Your task to perform on an android device: turn off picture-in-picture Image 0: 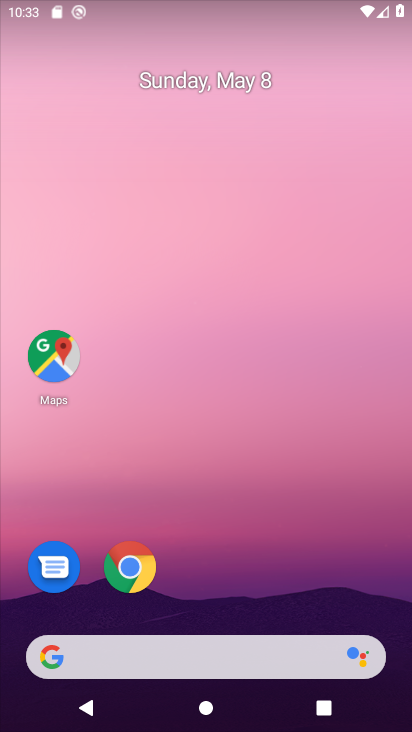
Step 0: drag from (261, 559) to (189, 70)
Your task to perform on an android device: turn off picture-in-picture Image 1: 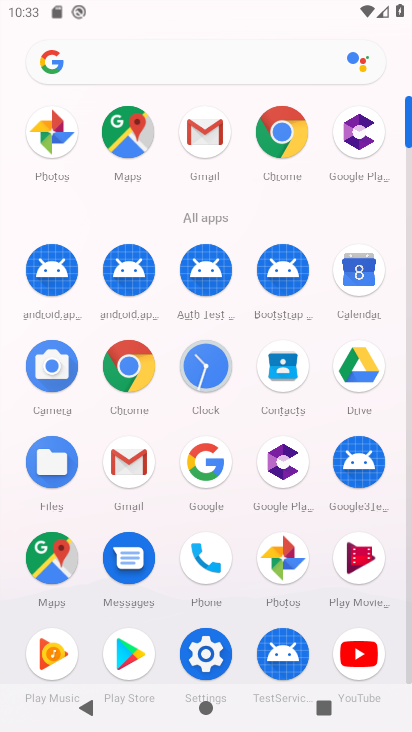
Step 1: click (204, 656)
Your task to perform on an android device: turn off picture-in-picture Image 2: 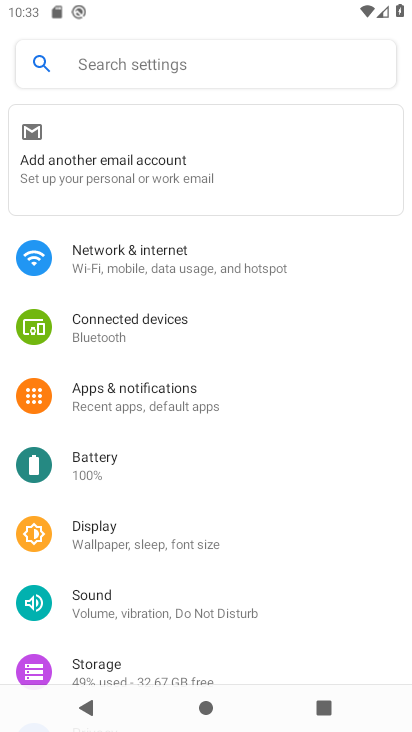
Step 2: click (194, 413)
Your task to perform on an android device: turn off picture-in-picture Image 3: 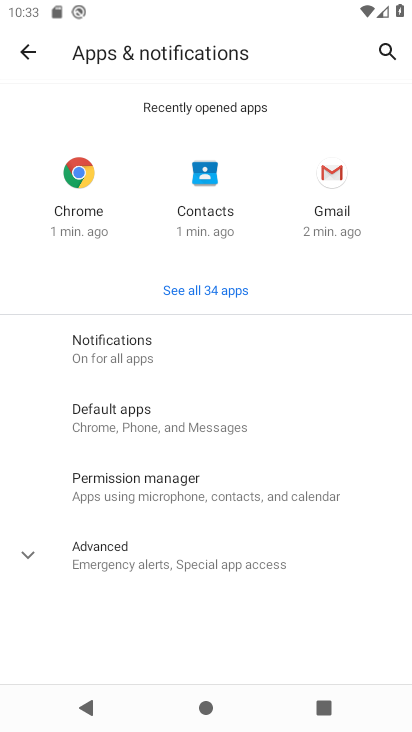
Step 3: click (38, 578)
Your task to perform on an android device: turn off picture-in-picture Image 4: 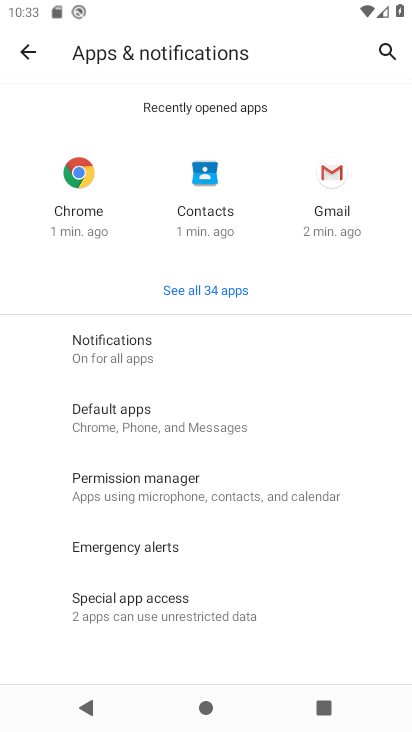
Step 4: drag from (165, 637) to (210, 394)
Your task to perform on an android device: turn off picture-in-picture Image 5: 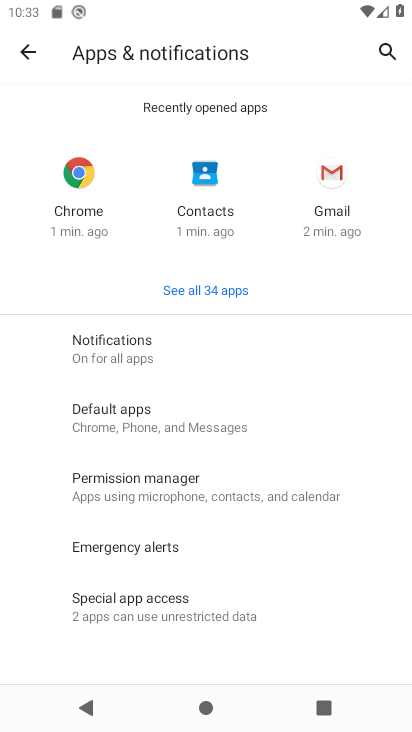
Step 5: click (129, 617)
Your task to perform on an android device: turn off picture-in-picture Image 6: 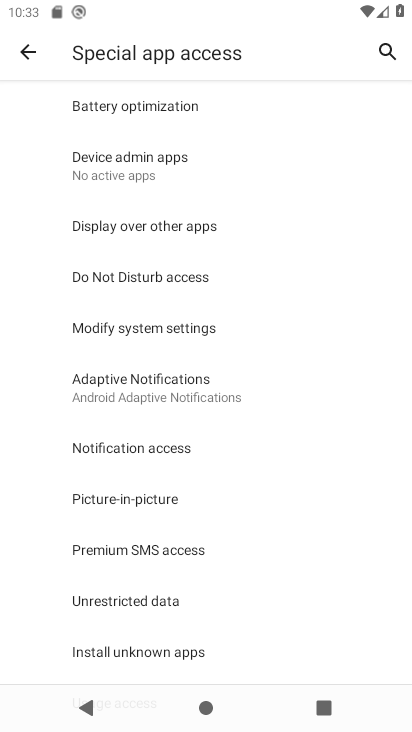
Step 6: click (111, 506)
Your task to perform on an android device: turn off picture-in-picture Image 7: 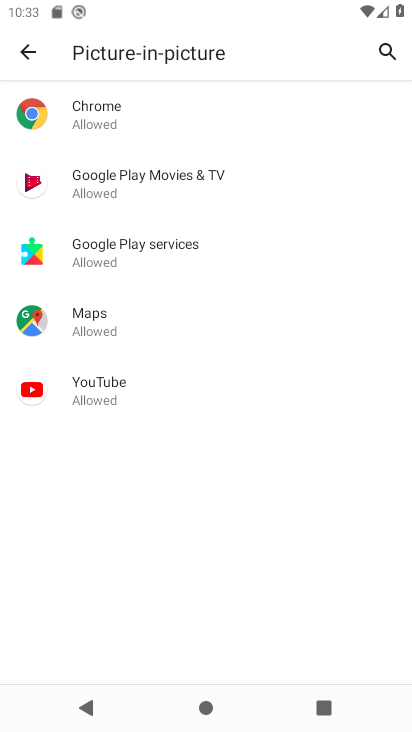
Step 7: click (88, 125)
Your task to perform on an android device: turn off picture-in-picture Image 8: 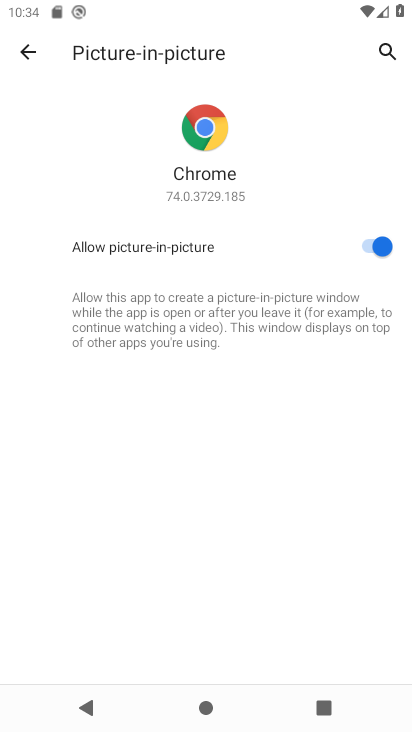
Step 8: click (373, 248)
Your task to perform on an android device: turn off picture-in-picture Image 9: 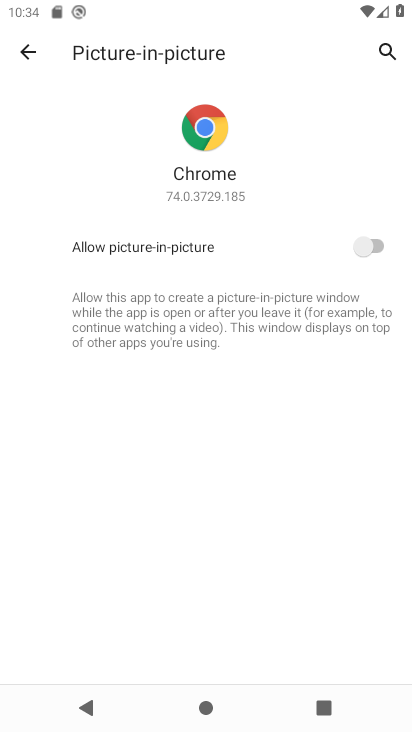
Step 9: task complete